Your task to perform on an android device: toggle data saver in the chrome app Image 0: 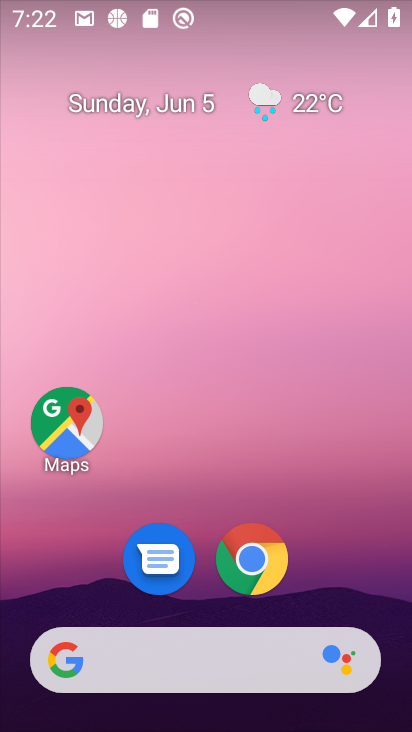
Step 0: click (254, 558)
Your task to perform on an android device: toggle data saver in the chrome app Image 1: 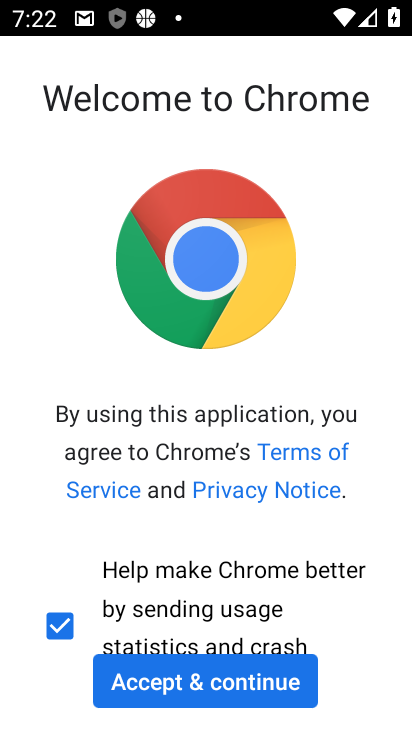
Step 1: click (229, 676)
Your task to perform on an android device: toggle data saver in the chrome app Image 2: 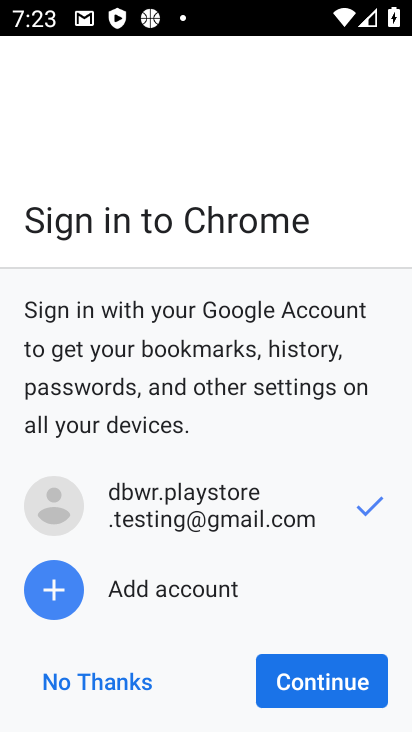
Step 2: click (292, 689)
Your task to perform on an android device: toggle data saver in the chrome app Image 3: 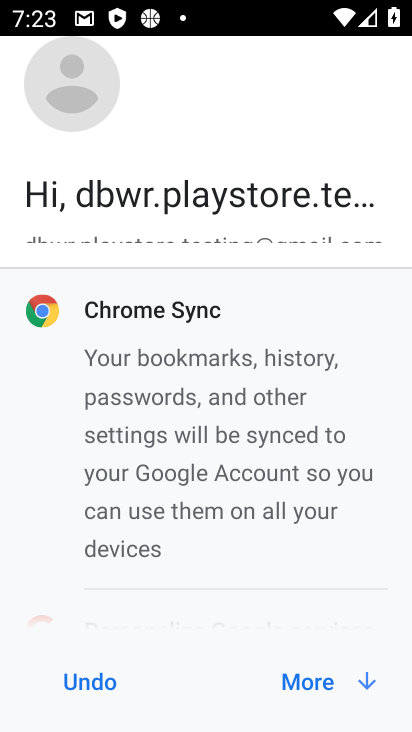
Step 3: click (308, 684)
Your task to perform on an android device: toggle data saver in the chrome app Image 4: 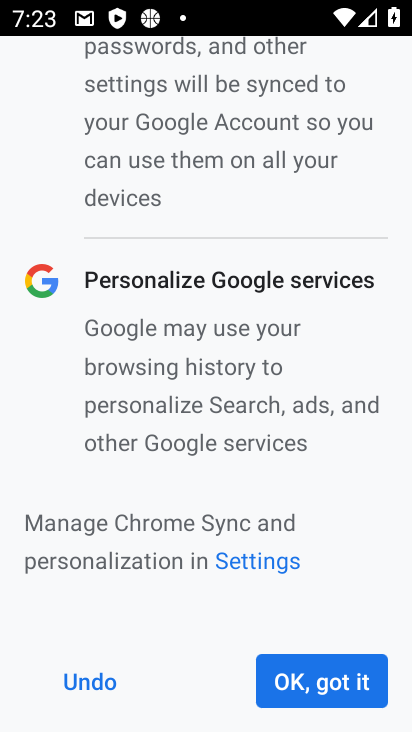
Step 4: click (308, 684)
Your task to perform on an android device: toggle data saver in the chrome app Image 5: 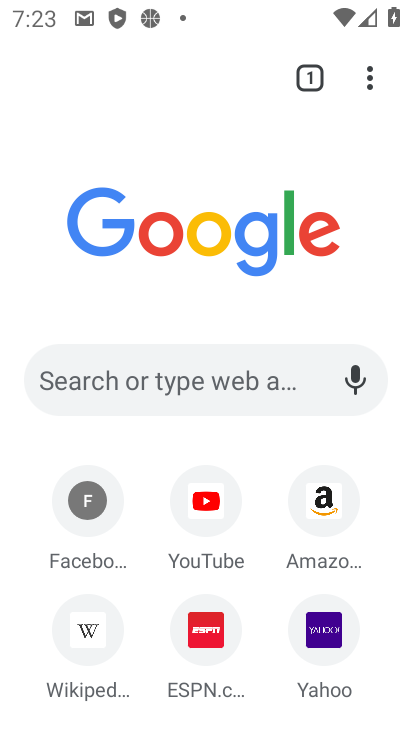
Step 5: click (370, 80)
Your task to perform on an android device: toggle data saver in the chrome app Image 6: 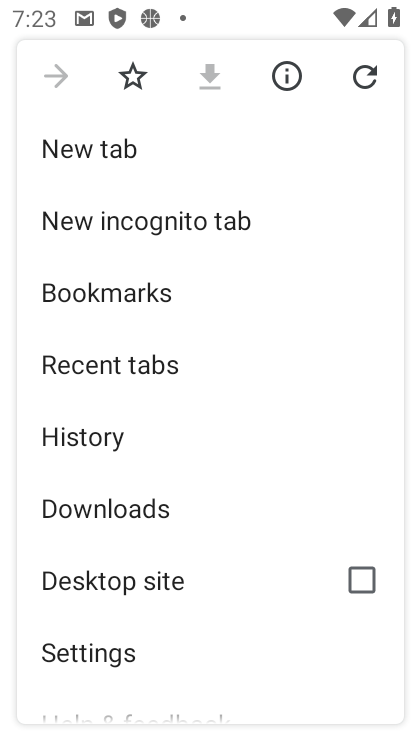
Step 6: drag from (137, 472) to (201, 385)
Your task to perform on an android device: toggle data saver in the chrome app Image 7: 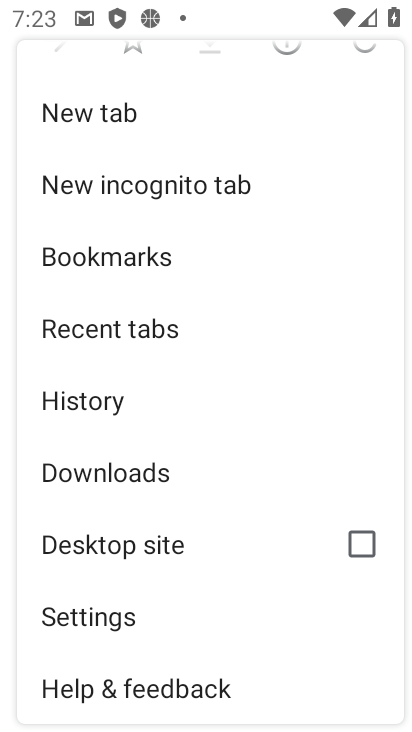
Step 7: drag from (136, 523) to (192, 426)
Your task to perform on an android device: toggle data saver in the chrome app Image 8: 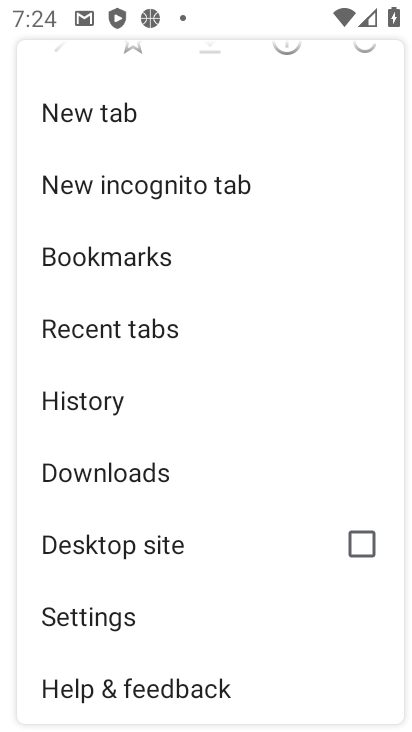
Step 8: click (125, 618)
Your task to perform on an android device: toggle data saver in the chrome app Image 9: 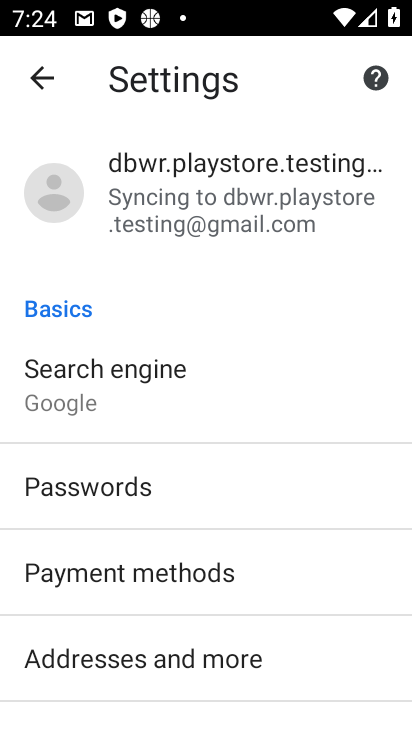
Step 9: drag from (180, 562) to (261, 466)
Your task to perform on an android device: toggle data saver in the chrome app Image 10: 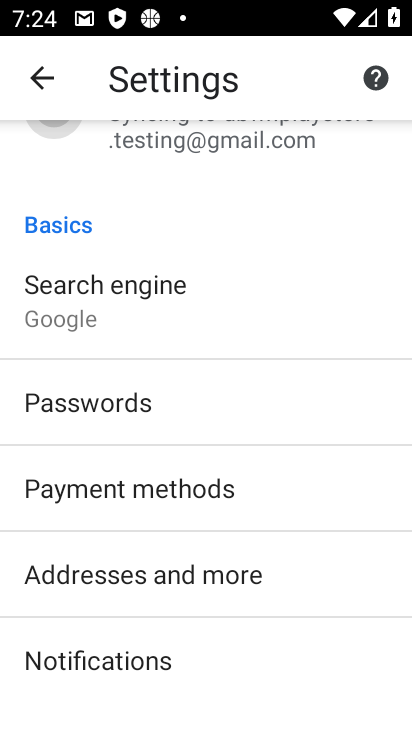
Step 10: drag from (203, 546) to (248, 472)
Your task to perform on an android device: toggle data saver in the chrome app Image 11: 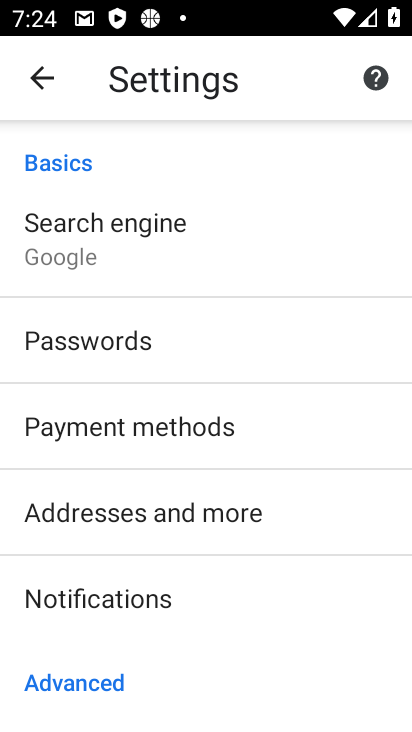
Step 11: drag from (176, 575) to (247, 489)
Your task to perform on an android device: toggle data saver in the chrome app Image 12: 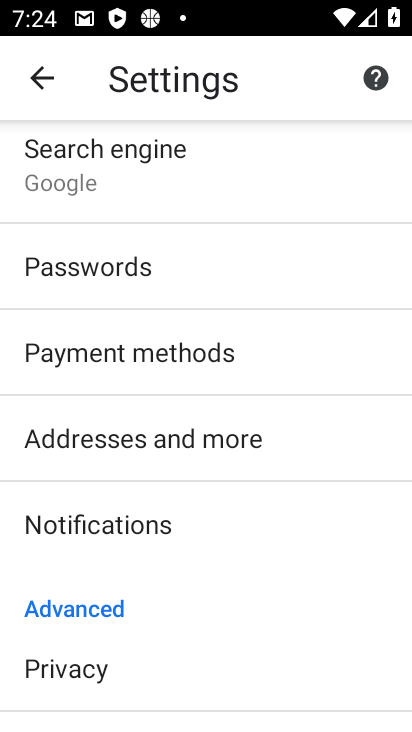
Step 12: drag from (154, 591) to (238, 479)
Your task to perform on an android device: toggle data saver in the chrome app Image 13: 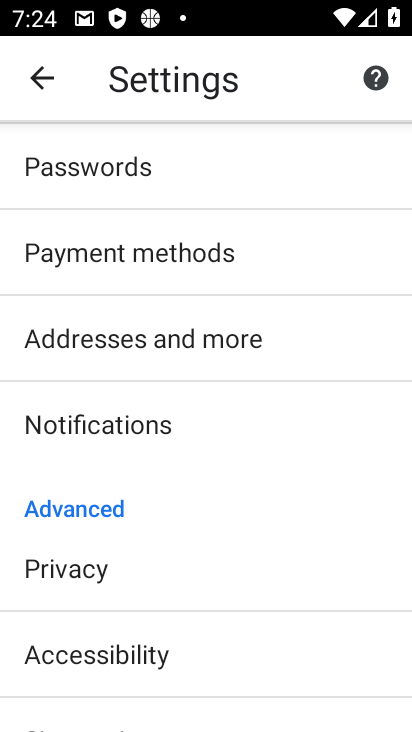
Step 13: drag from (171, 580) to (281, 459)
Your task to perform on an android device: toggle data saver in the chrome app Image 14: 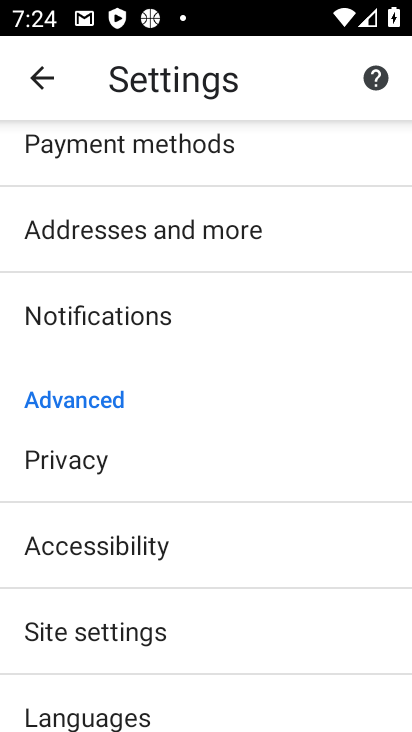
Step 14: drag from (222, 565) to (312, 463)
Your task to perform on an android device: toggle data saver in the chrome app Image 15: 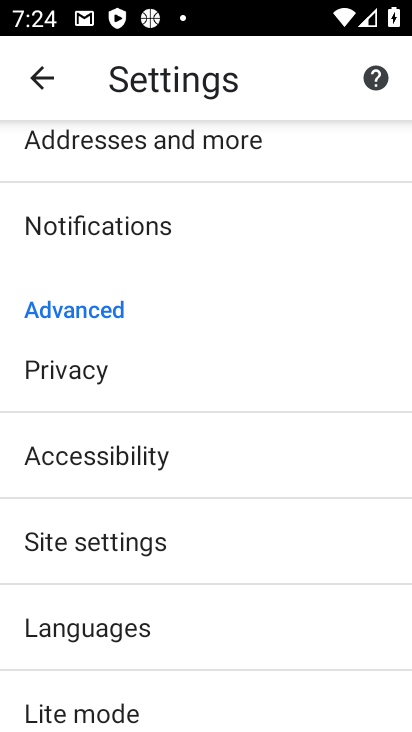
Step 15: drag from (202, 609) to (278, 503)
Your task to perform on an android device: toggle data saver in the chrome app Image 16: 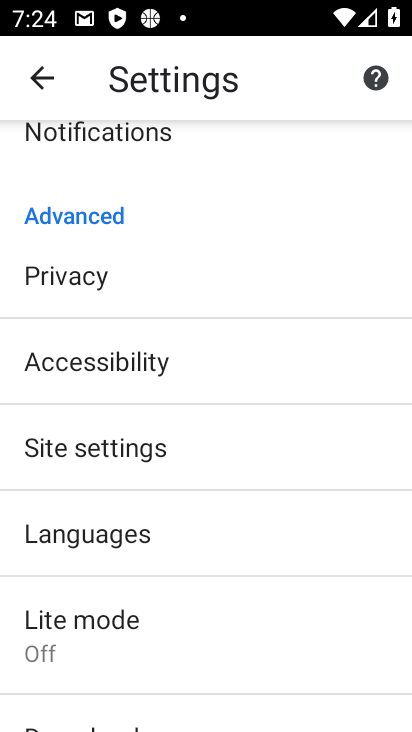
Step 16: click (131, 623)
Your task to perform on an android device: toggle data saver in the chrome app Image 17: 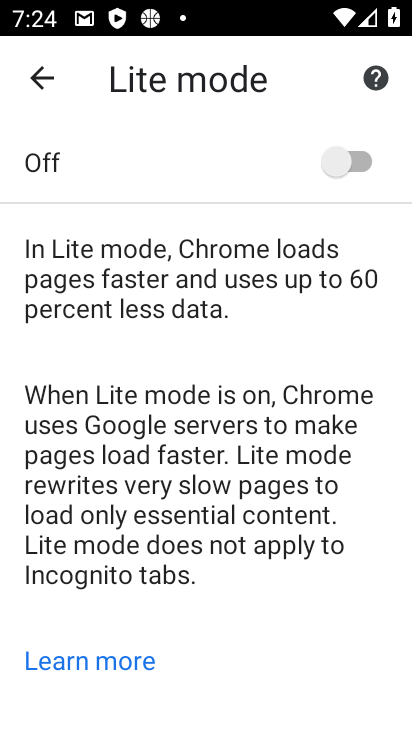
Step 17: click (356, 159)
Your task to perform on an android device: toggle data saver in the chrome app Image 18: 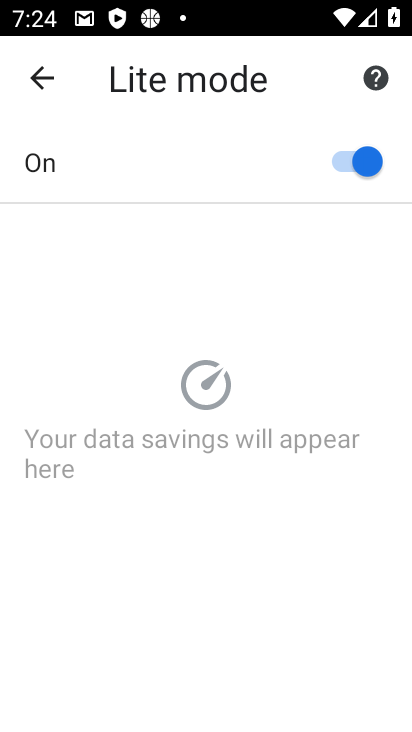
Step 18: task complete